Your task to perform on an android device: clear history in the chrome app Image 0: 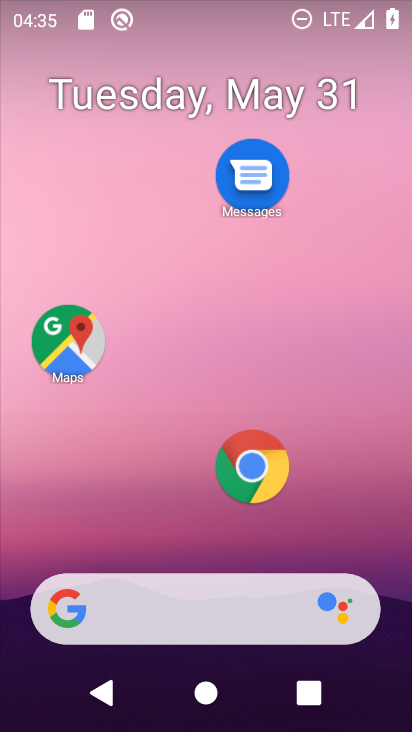
Step 0: click (252, 448)
Your task to perform on an android device: clear history in the chrome app Image 1: 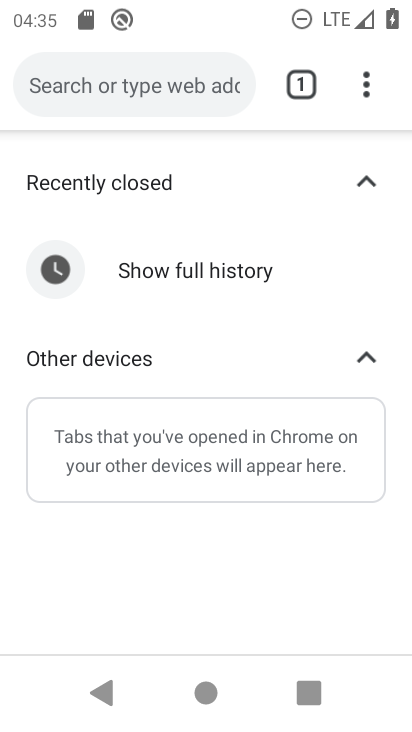
Step 1: task complete